Your task to perform on an android device: install app "Pinterest" Image 0: 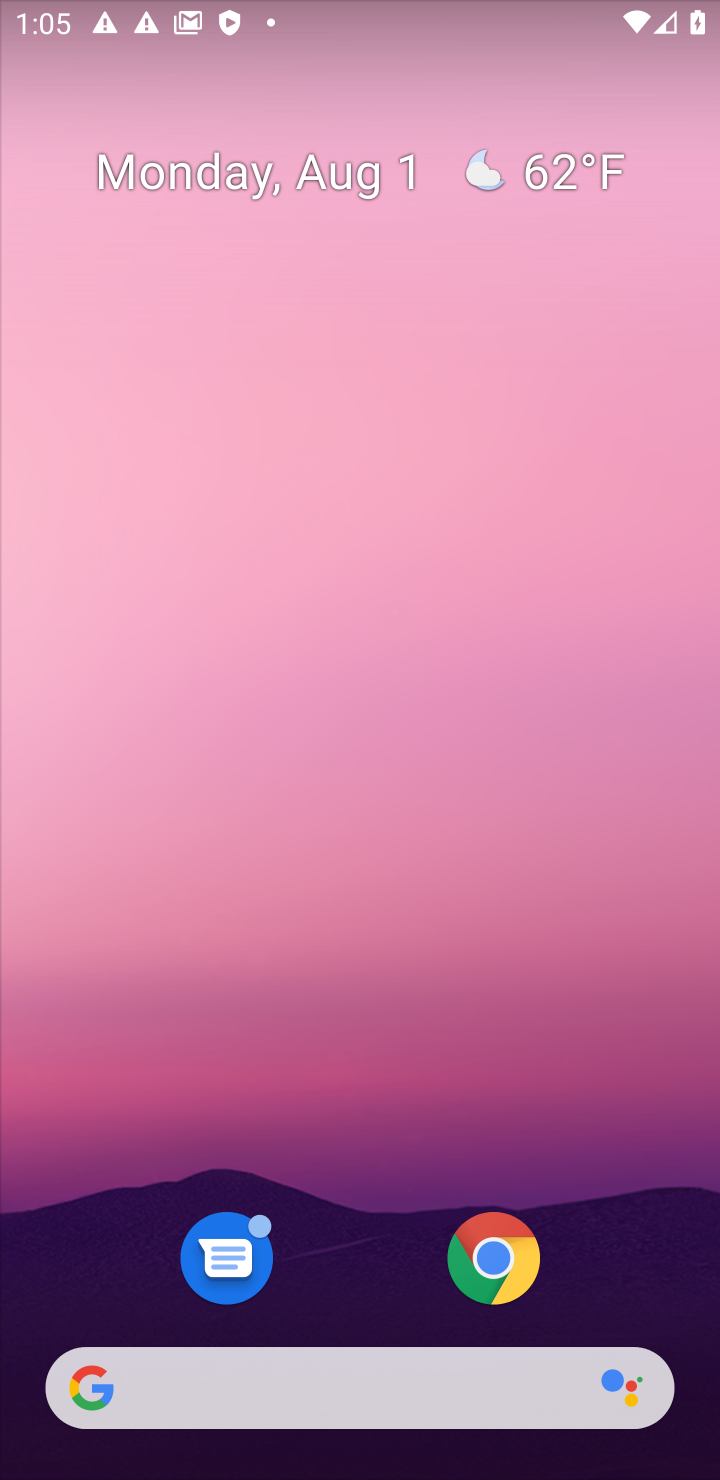
Step 0: drag from (135, 956) to (231, 68)
Your task to perform on an android device: install app "Pinterest" Image 1: 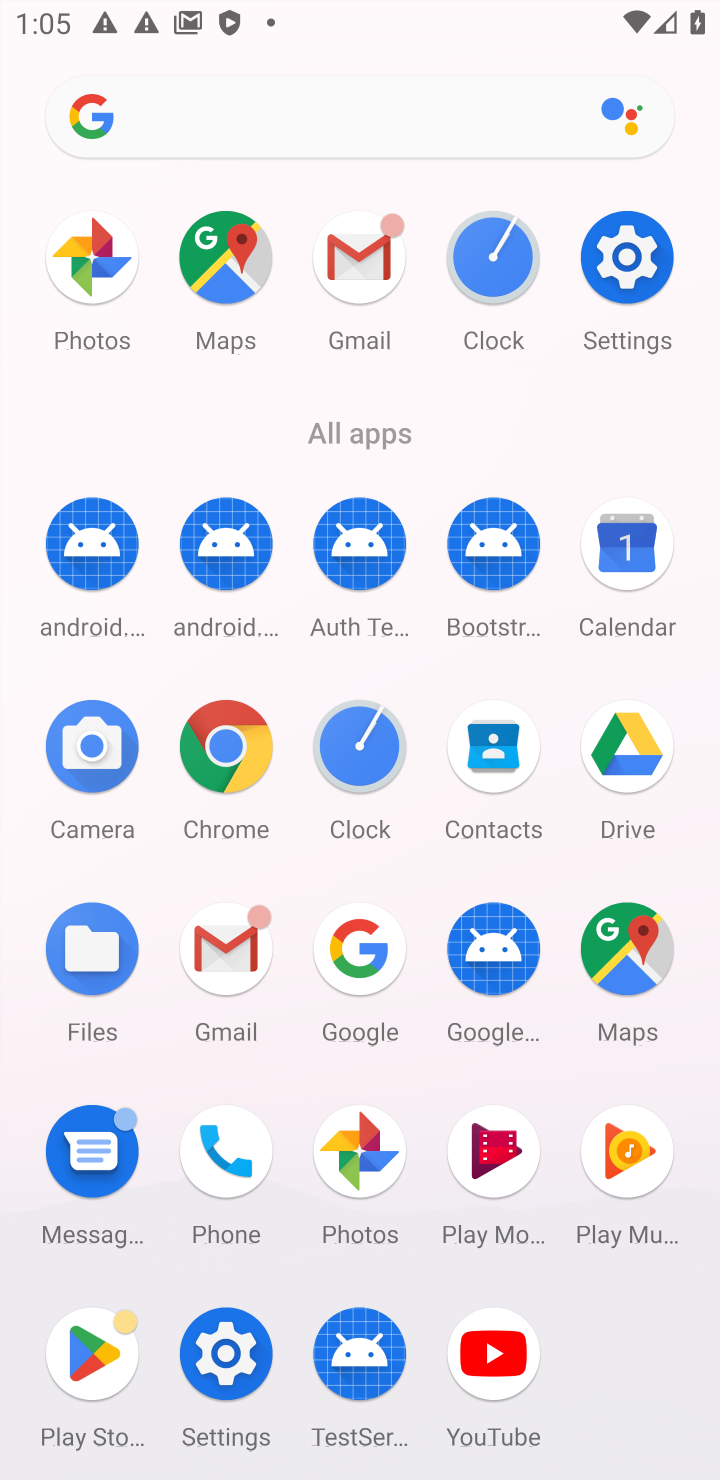
Step 1: click (91, 1360)
Your task to perform on an android device: install app "Pinterest" Image 2: 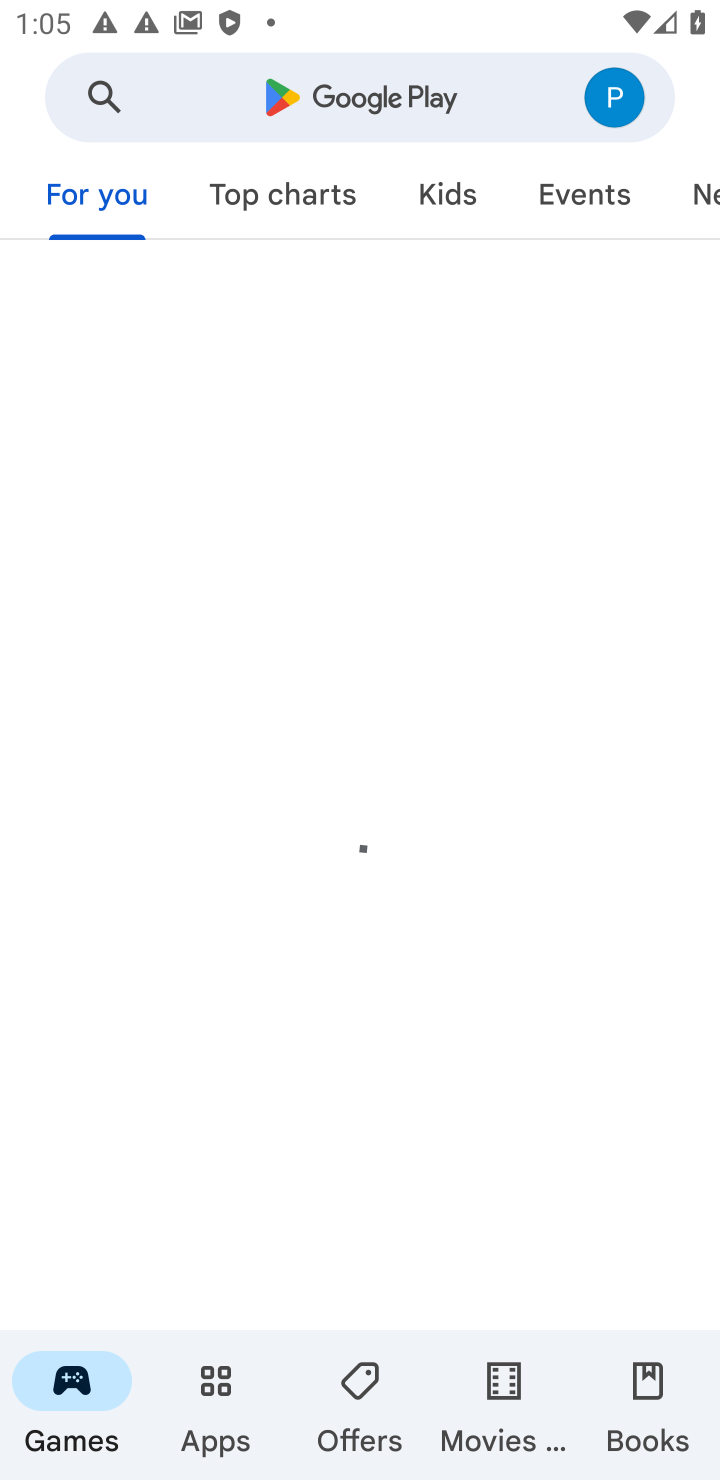
Step 2: click (417, 113)
Your task to perform on an android device: install app "Pinterest" Image 3: 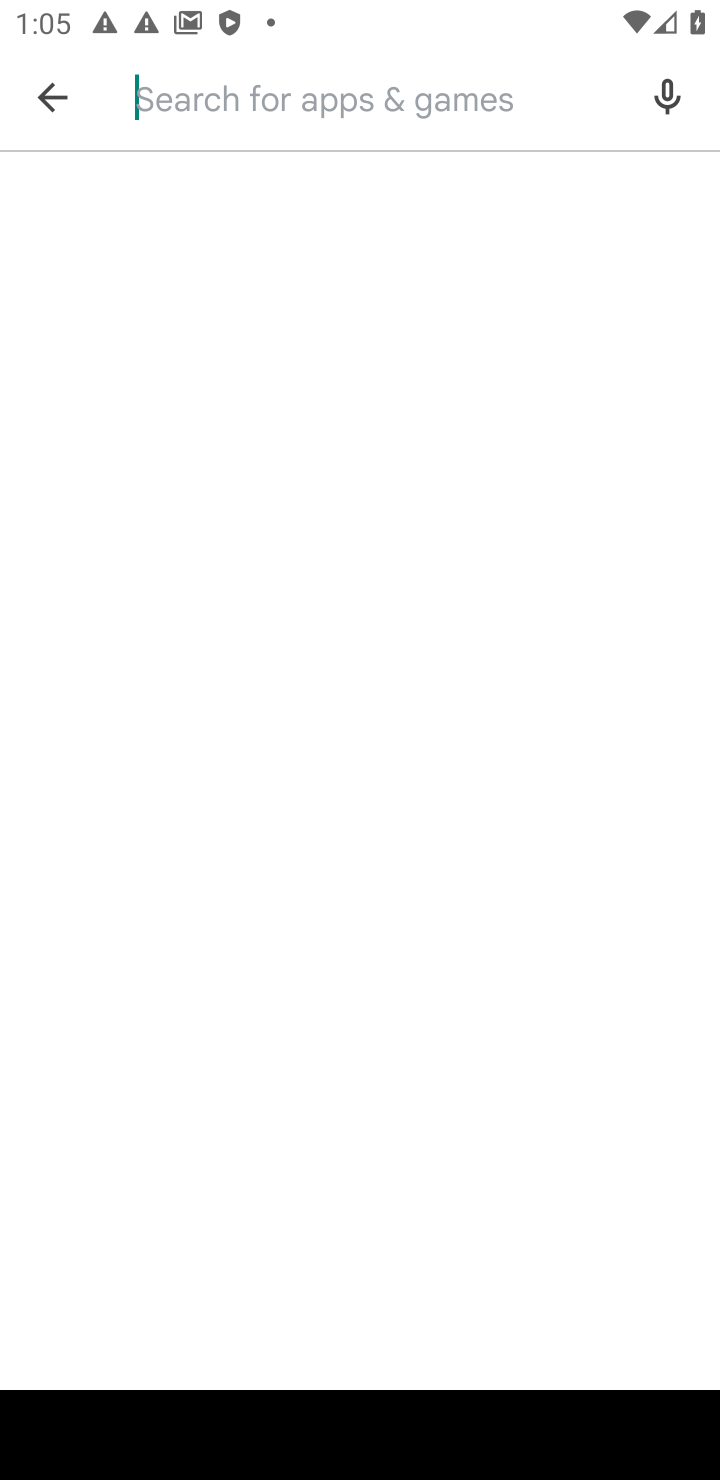
Step 3: click (400, 113)
Your task to perform on an android device: install app "Pinterest" Image 4: 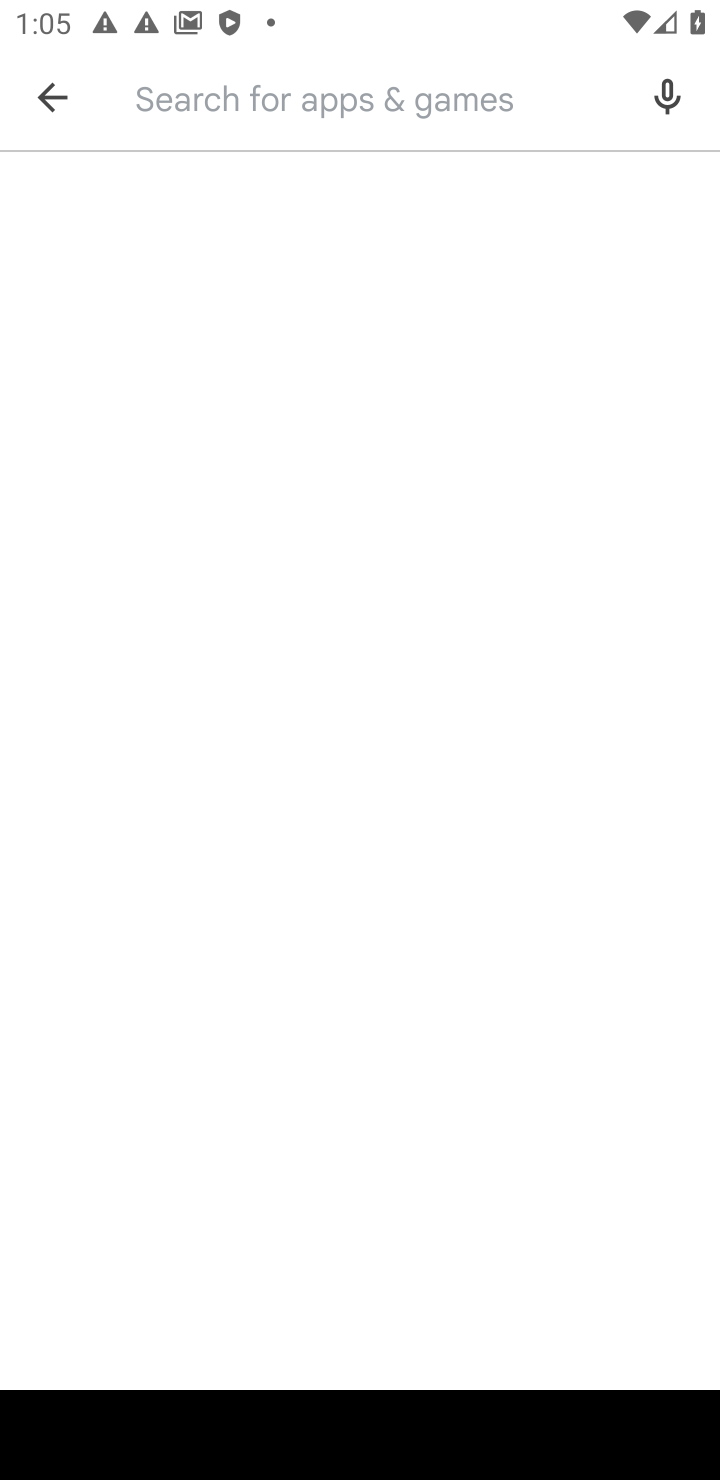
Step 4: click (400, 113)
Your task to perform on an android device: install app "Pinterest" Image 5: 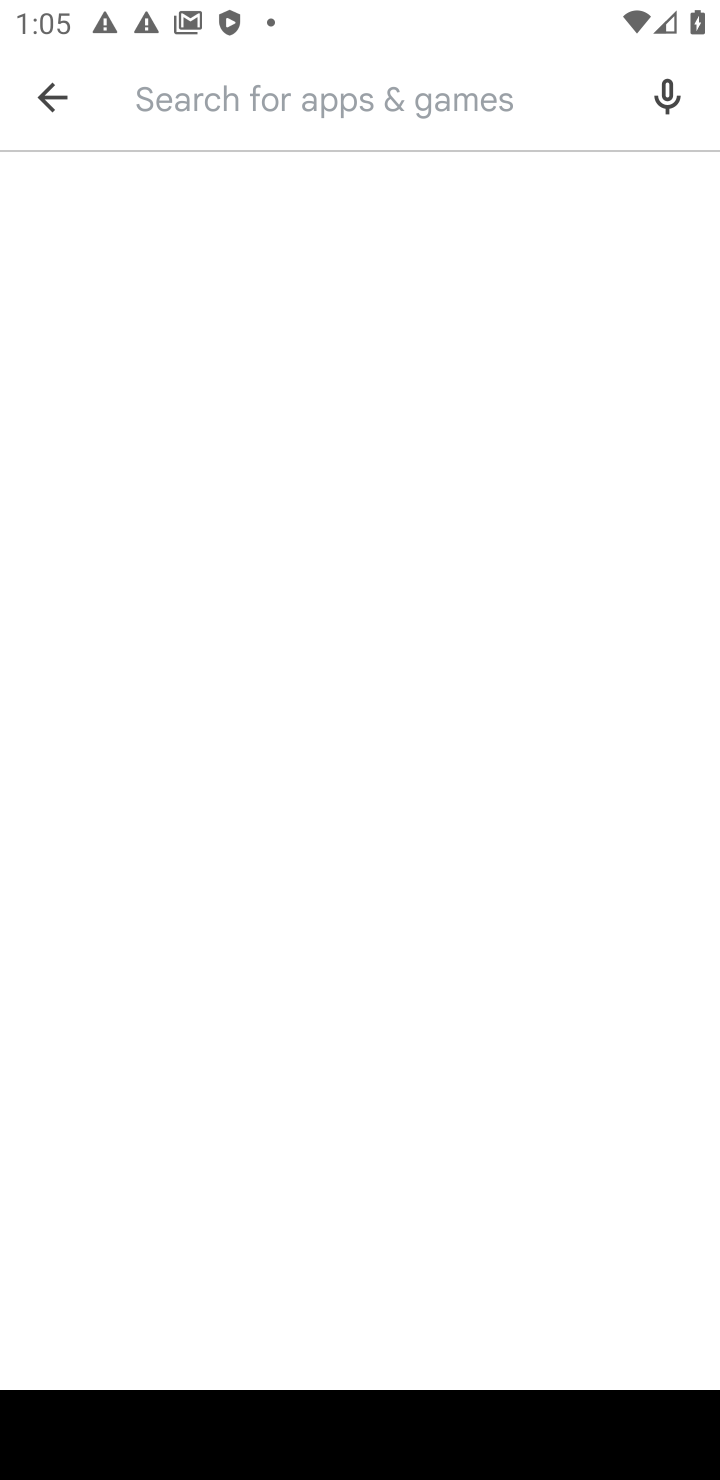
Step 5: type "pinterest"
Your task to perform on an android device: install app "Pinterest" Image 6: 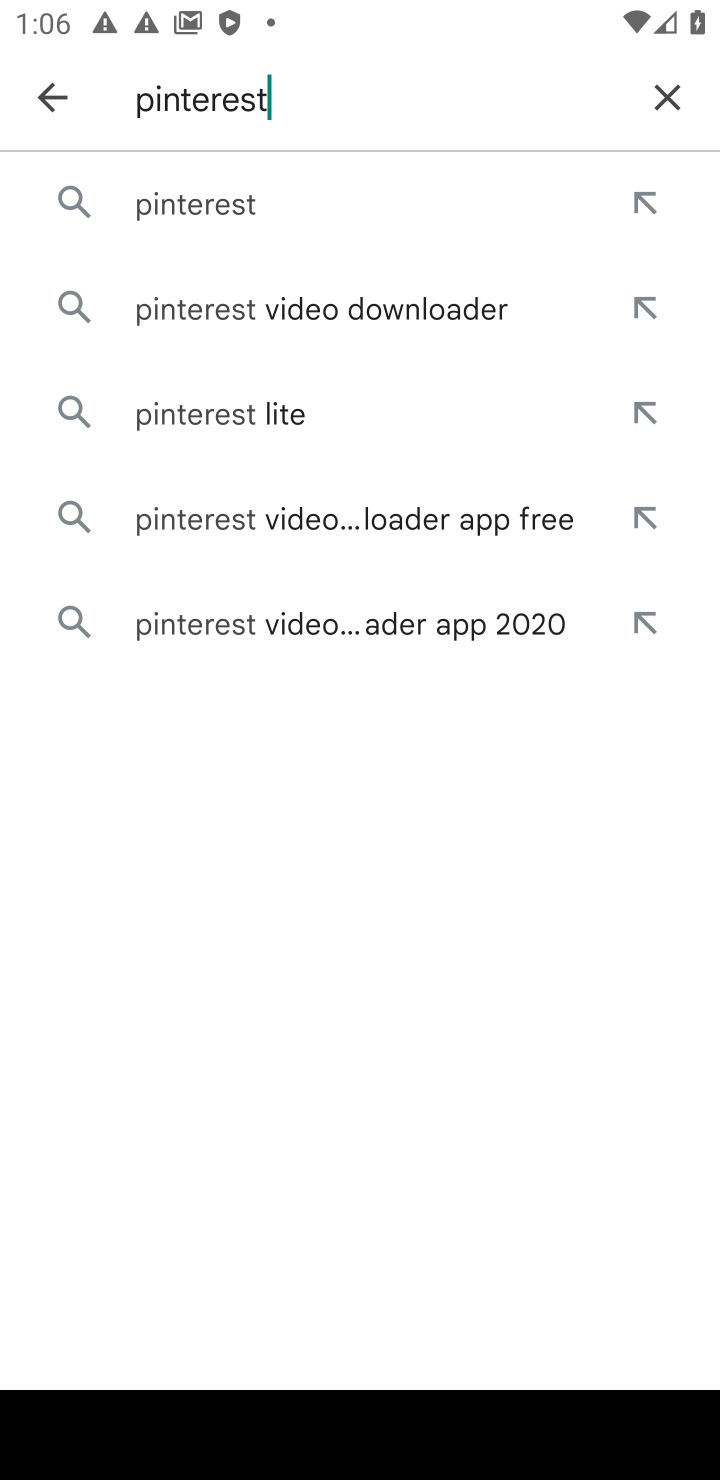
Step 6: click (281, 200)
Your task to perform on an android device: install app "Pinterest" Image 7: 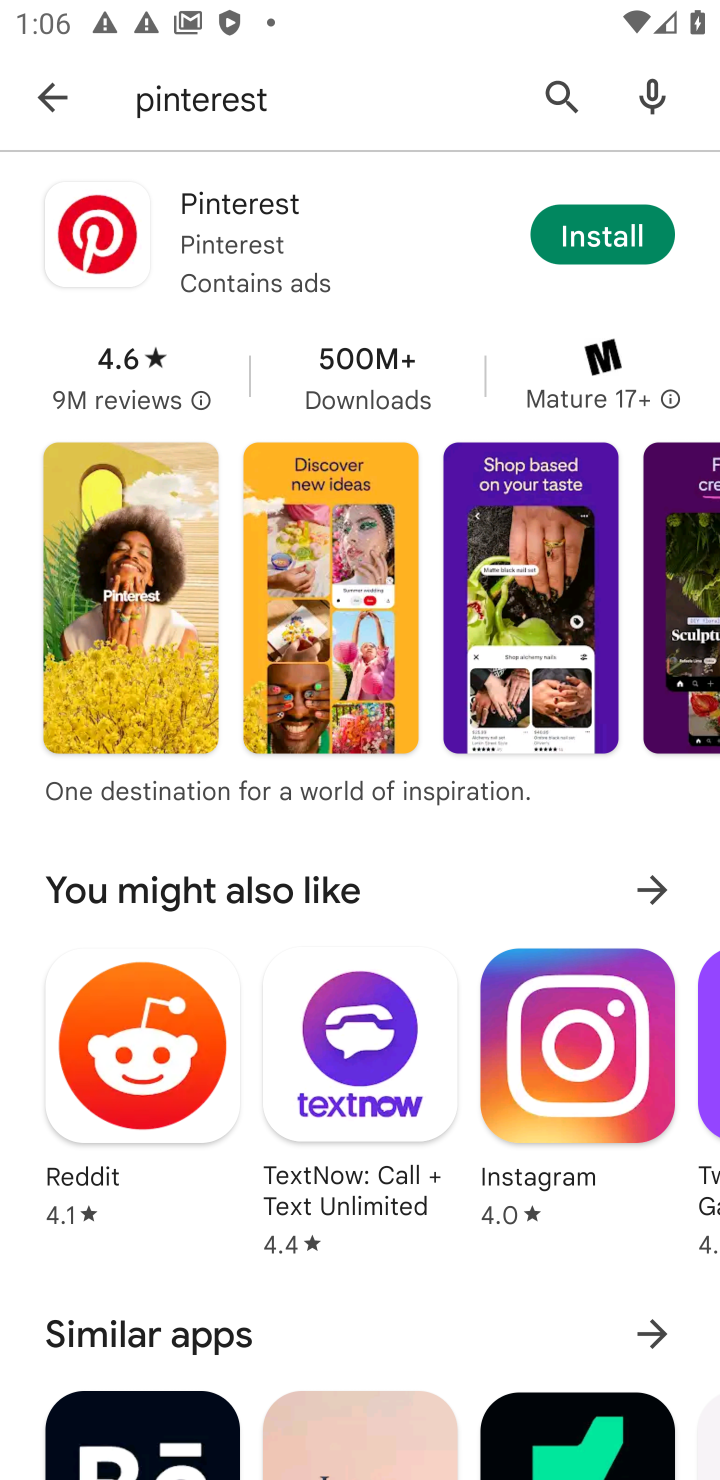
Step 7: click (616, 228)
Your task to perform on an android device: install app "Pinterest" Image 8: 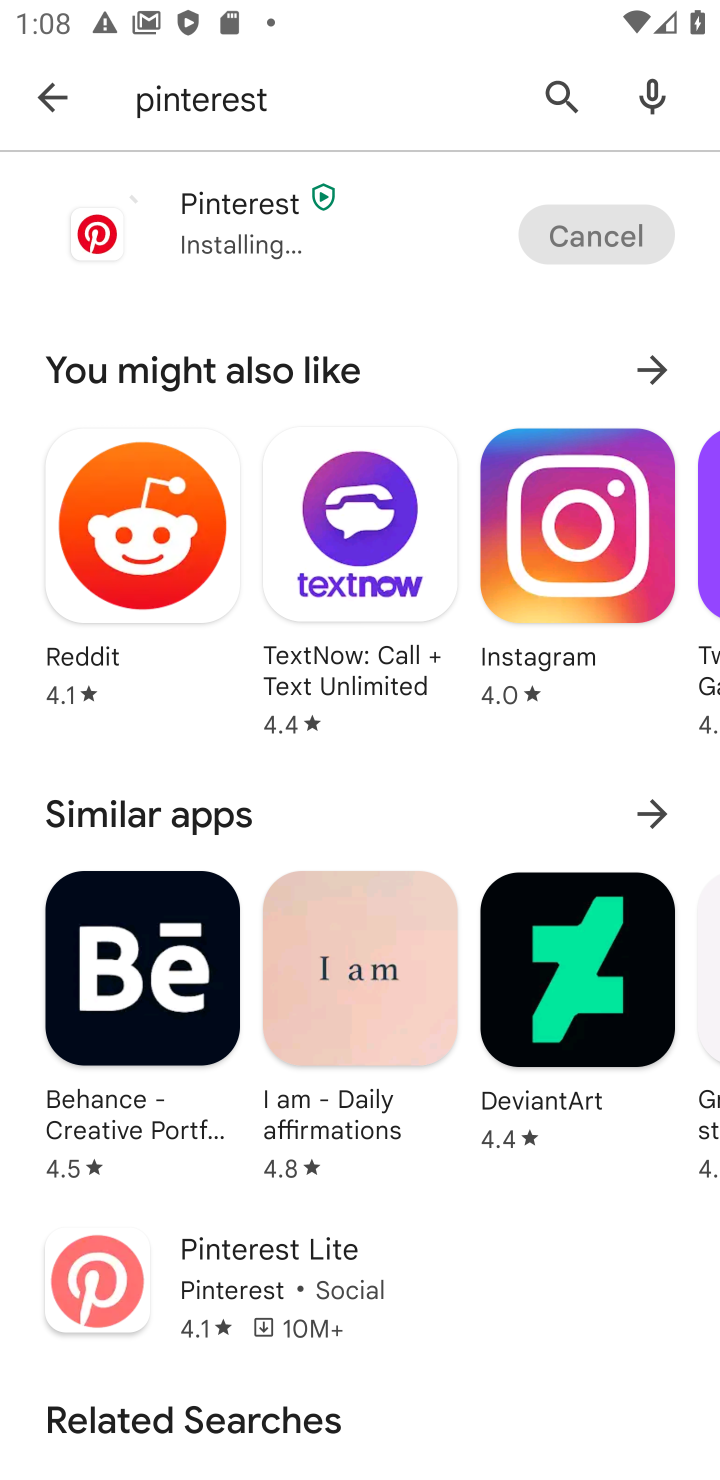
Step 8: click (50, 60)
Your task to perform on an android device: install app "Pinterest" Image 9: 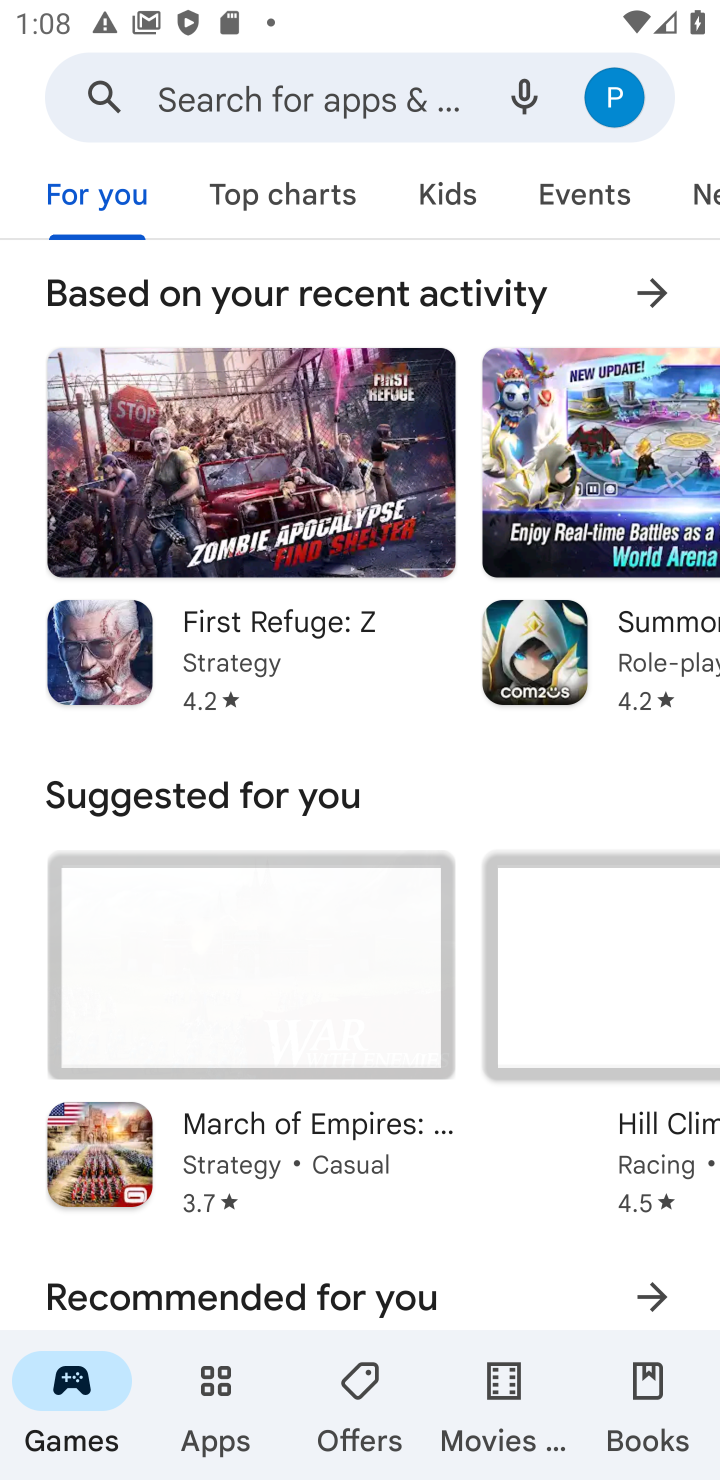
Step 9: click (272, 109)
Your task to perform on an android device: install app "Pinterest" Image 10: 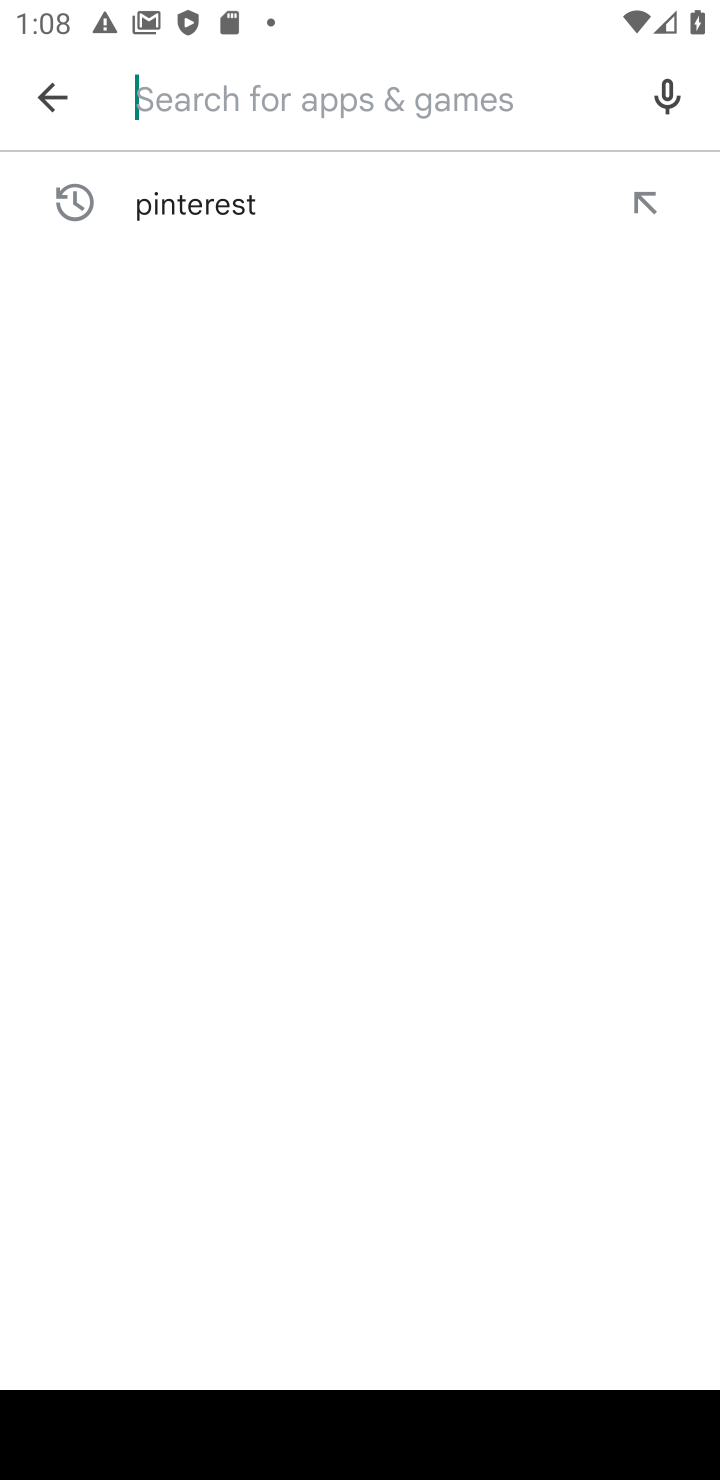
Step 10: click (223, 208)
Your task to perform on an android device: install app "Pinterest" Image 11: 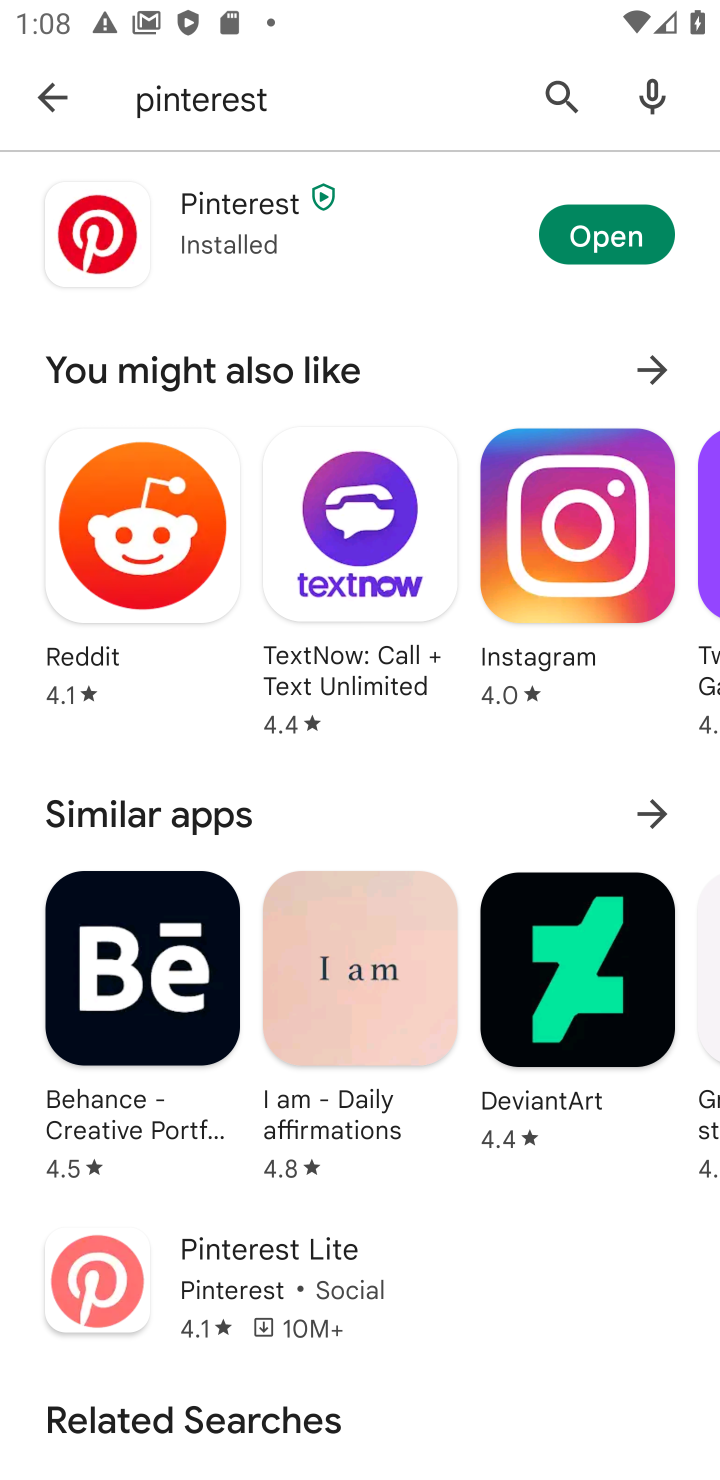
Step 11: click (579, 224)
Your task to perform on an android device: install app "Pinterest" Image 12: 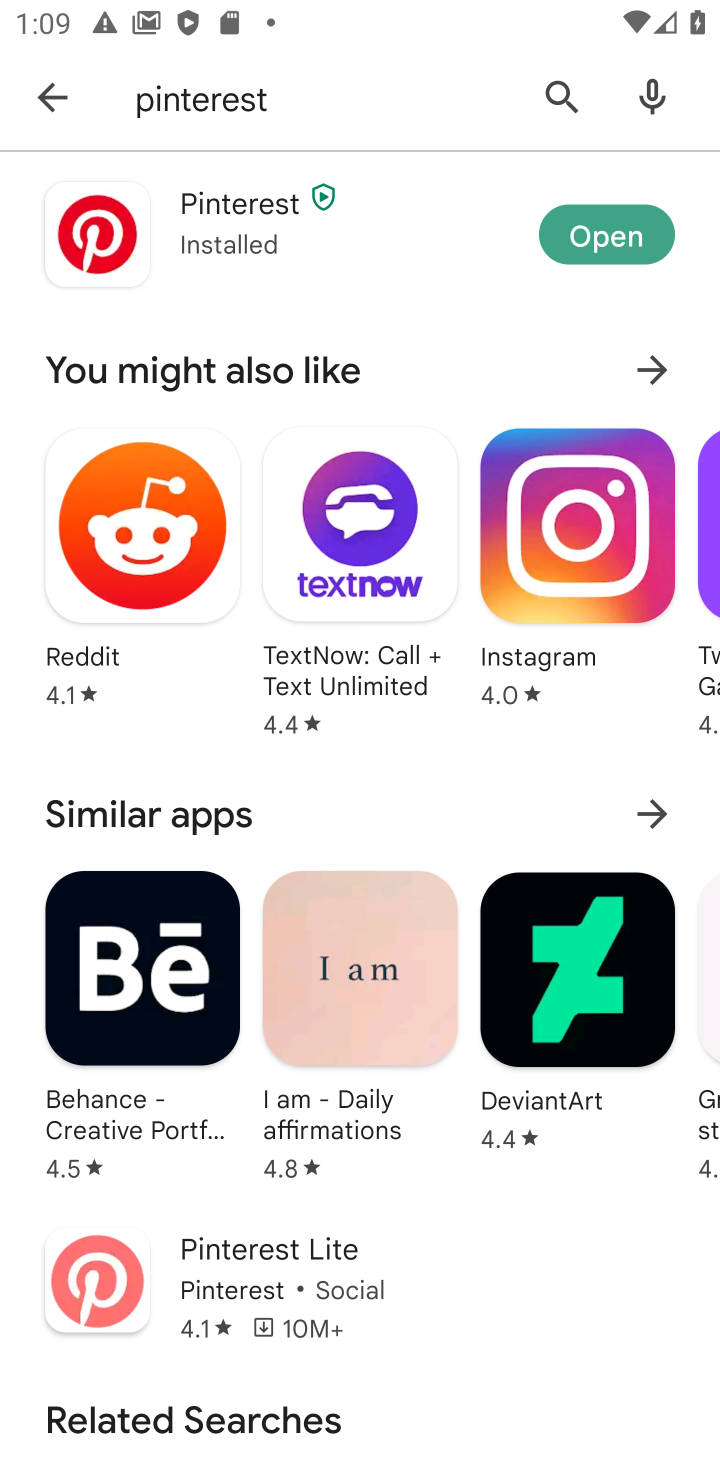
Step 12: task complete